Your task to perform on an android device: turn pop-ups on in chrome Image 0: 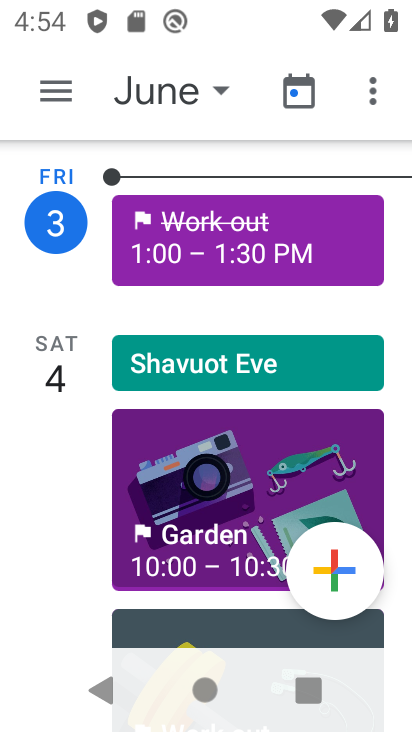
Step 0: press back button
Your task to perform on an android device: turn pop-ups on in chrome Image 1: 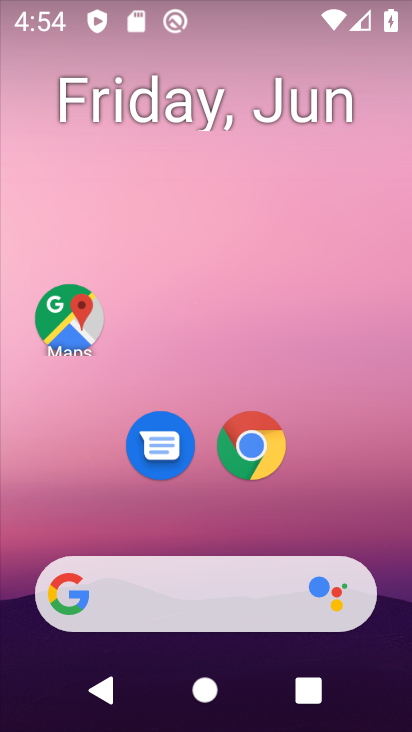
Step 1: drag from (388, 628) to (364, 69)
Your task to perform on an android device: turn pop-ups on in chrome Image 2: 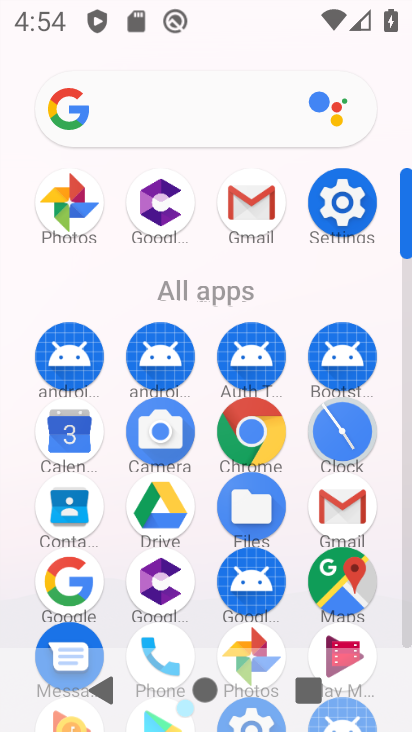
Step 2: click (247, 429)
Your task to perform on an android device: turn pop-ups on in chrome Image 3: 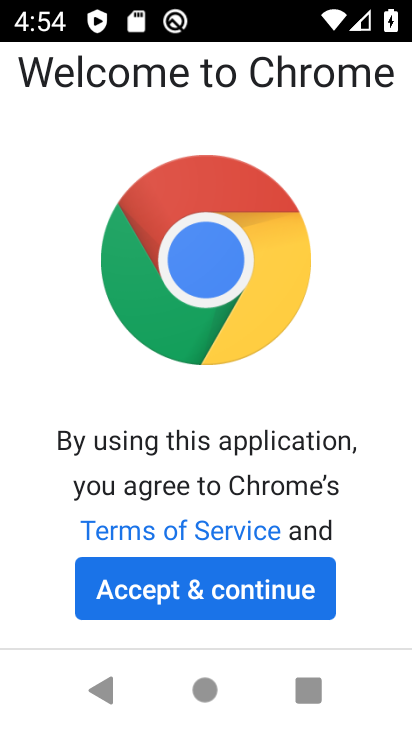
Step 3: click (214, 592)
Your task to perform on an android device: turn pop-ups on in chrome Image 4: 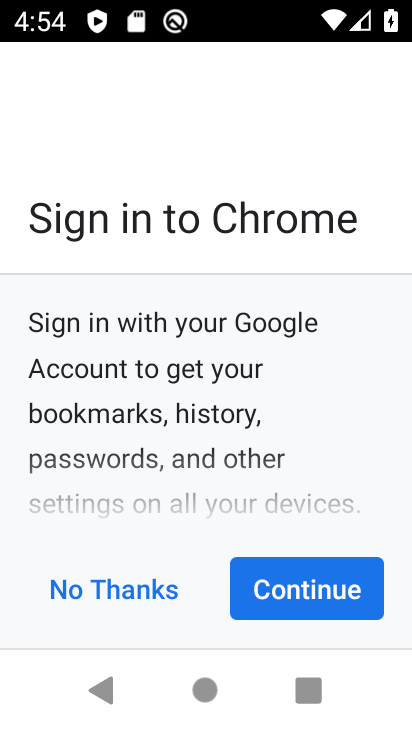
Step 4: click (274, 585)
Your task to perform on an android device: turn pop-ups on in chrome Image 5: 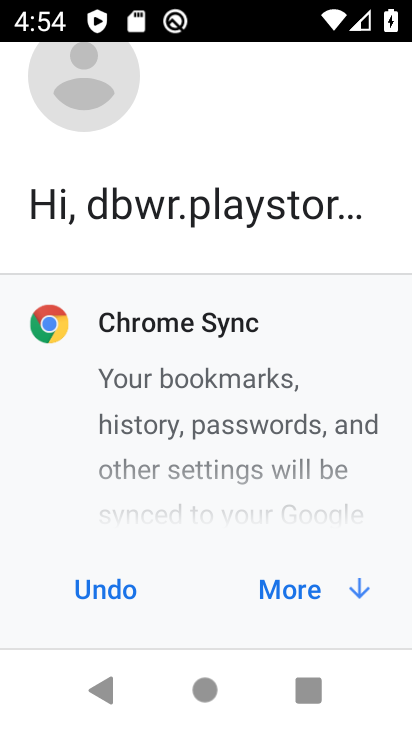
Step 5: click (275, 584)
Your task to perform on an android device: turn pop-ups on in chrome Image 6: 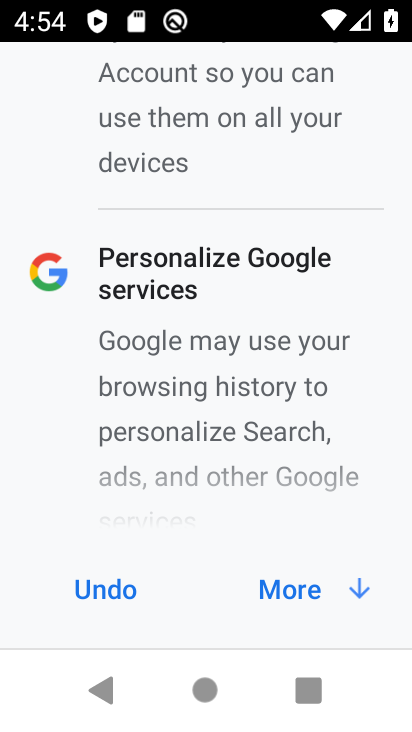
Step 6: click (275, 584)
Your task to perform on an android device: turn pop-ups on in chrome Image 7: 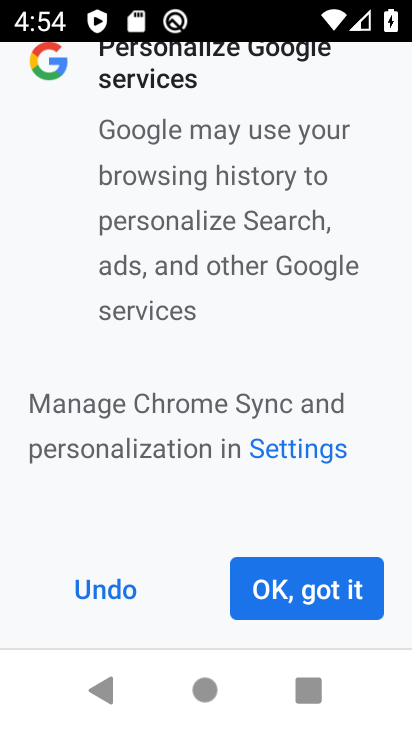
Step 7: click (275, 584)
Your task to perform on an android device: turn pop-ups on in chrome Image 8: 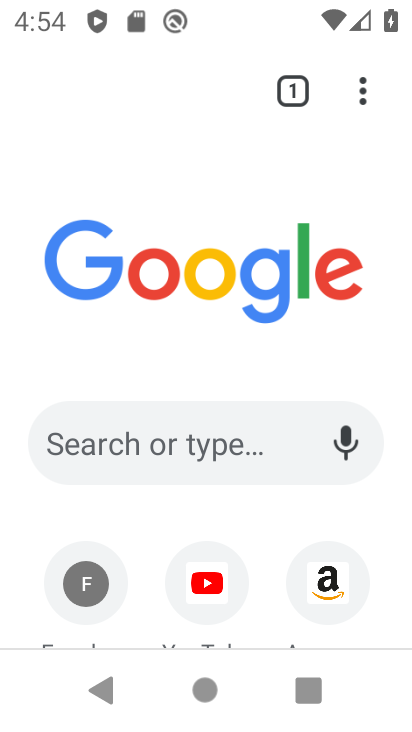
Step 8: drag from (359, 90) to (144, 463)
Your task to perform on an android device: turn pop-ups on in chrome Image 9: 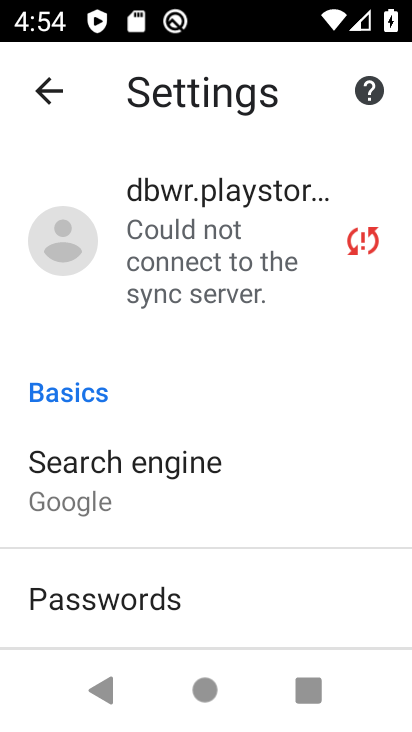
Step 9: drag from (205, 535) to (213, 166)
Your task to perform on an android device: turn pop-ups on in chrome Image 10: 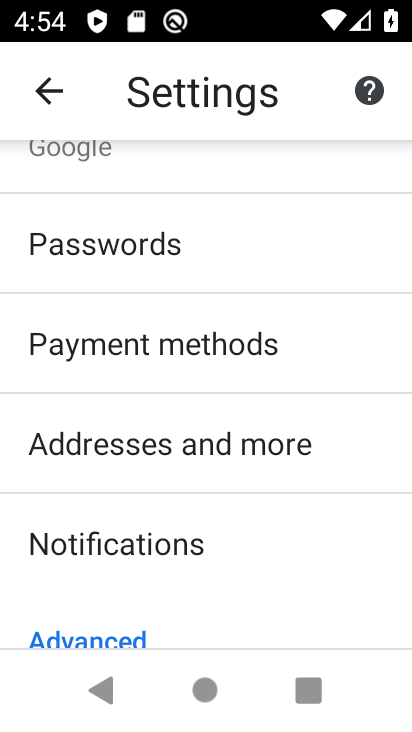
Step 10: drag from (212, 498) to (209, 180)
Your task to perform on an android device: turn pop-ups on in chrome Image 11: 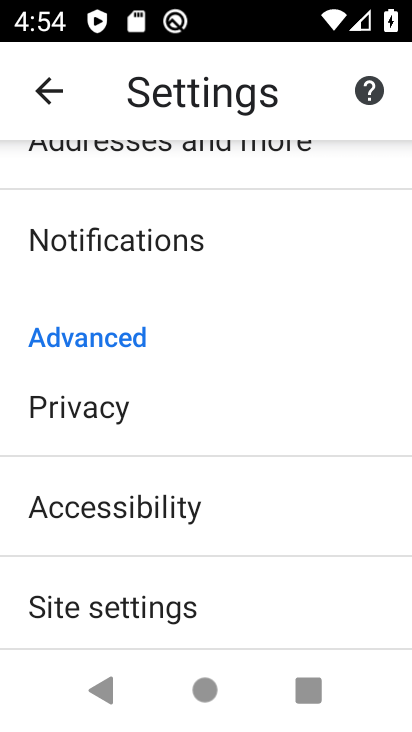
Step 11: drag from (216, 562) to (228, 214)
Your task to perform on an android device: turn pop-ups on in chrome Image 12: 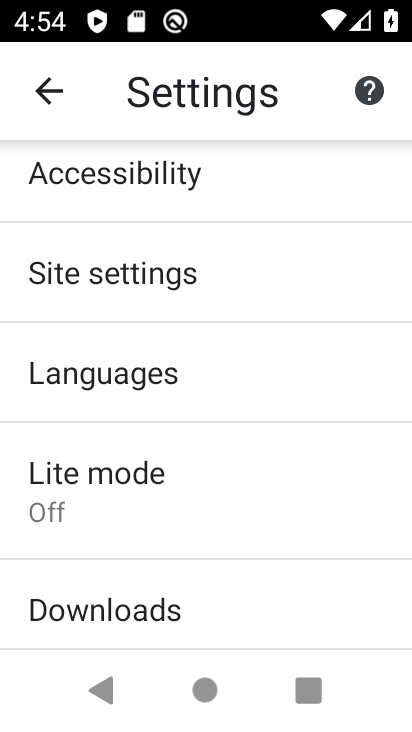
Step 12: drag from (256, 556) to (251, 188)
Your task to perform on an android device: turn pop-ups on in chrome Image 13: 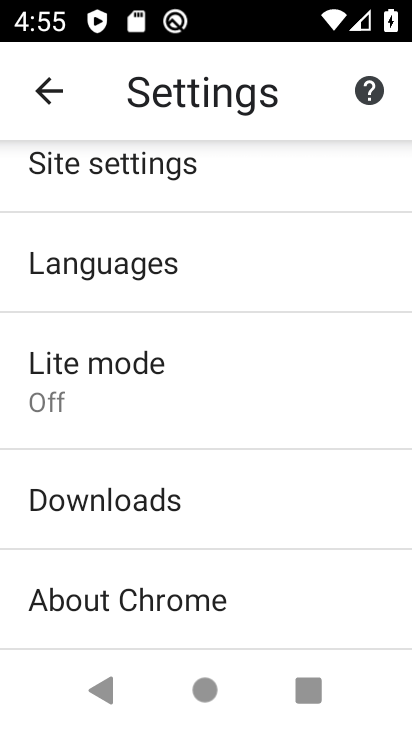
Step 13: click (154, 166)
Your task to perform on an android device: turn pop-ups on in chrome Image 14: 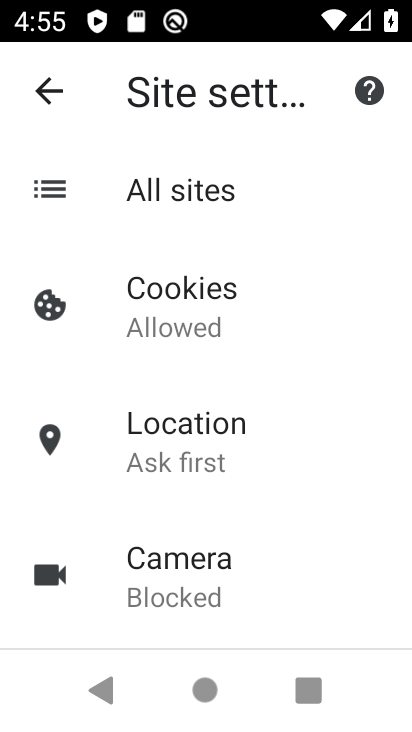
Step 14: drag from (255, 577) to (250, 206)
Your task to perform on an android device: turn pop-ups on in chrome Image 15: 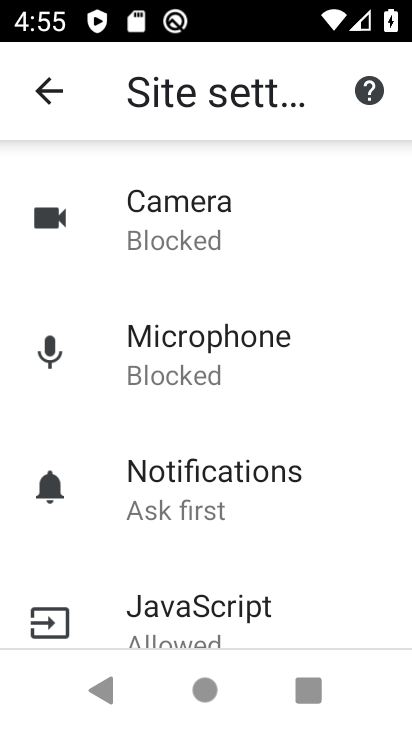
Step 15: drag from (268, 576) to (264, 203)
Your task to perform on an android device: turn pop-ups on in chrome Image 16: 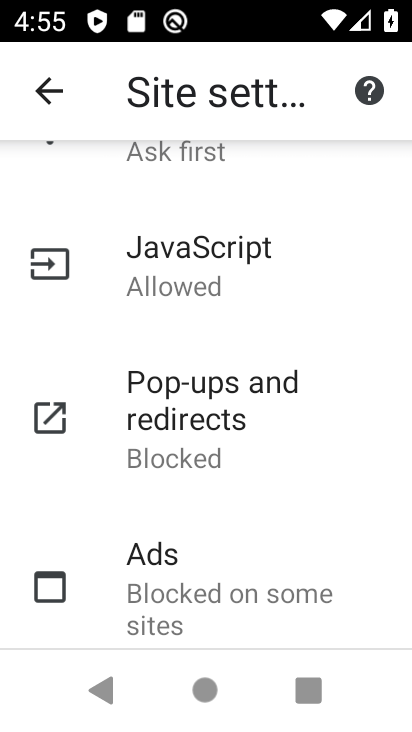
Step 16: click (242, 415)
Your task to perform on an android device: turn pop-ups on in chrome Image 17: 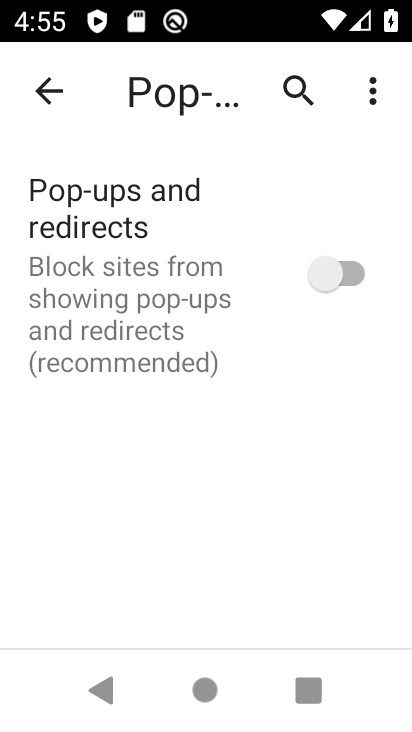
Step 17: click (331, 272)
Your task to perform on an android device: turn pop-ups on in chrome Image 18: 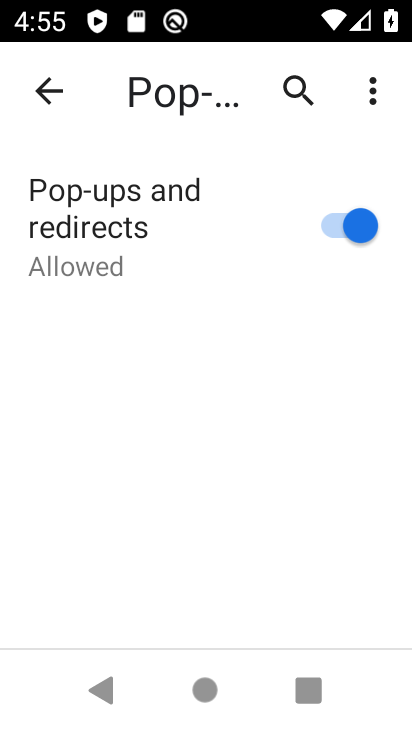
Step 18: task complete